Your task to perform on an android device: turn on bluetooth scan Image 0: 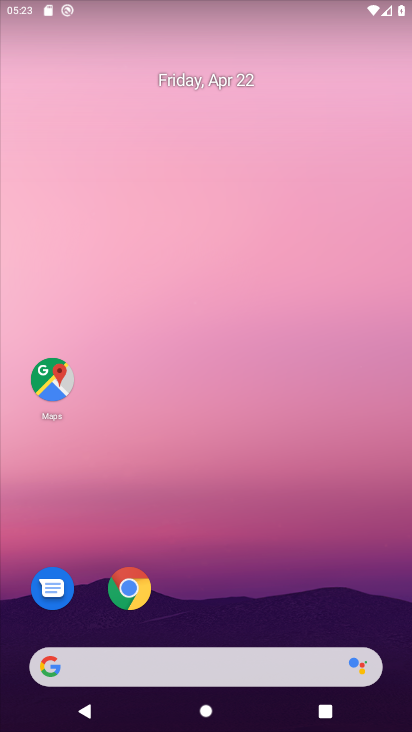
Step 0: drag from (295, 514) to (296, 0)
Your task to perform on an android device: turn on bluetooth scan Image 1: 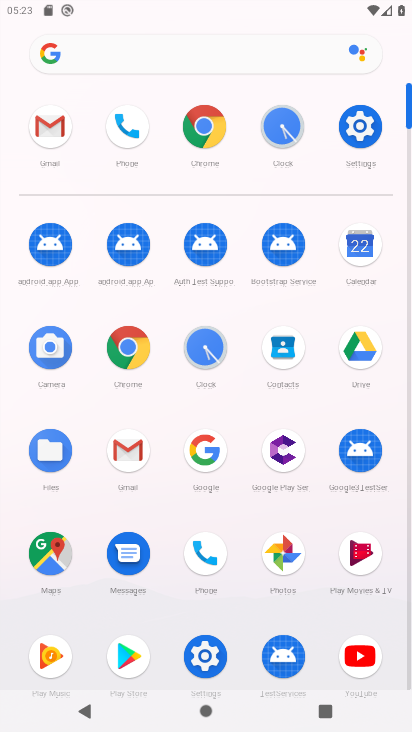
Step 1: click (367, 131)
Your task to perform on an android device: turn on bluetooth scan Image 2: 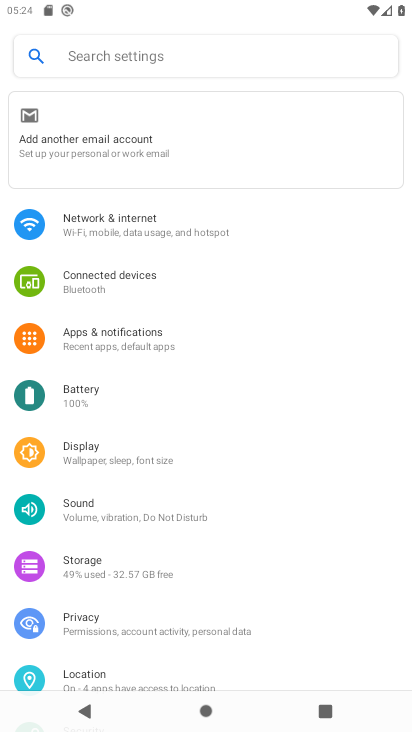
Step 2: drag from (154, 539) to (196, 320)
Your task to perform on an android device: turn on bluetooth scan Image 3: 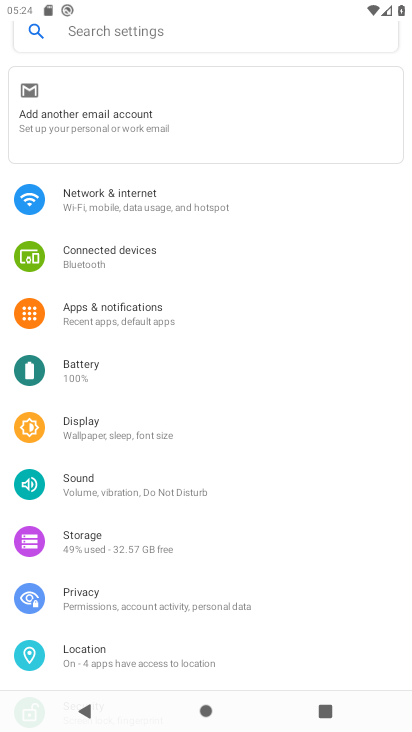
Step 3: click (123, 647)
Your task to perform on an android device: turn on bluetooth scan Image 4: 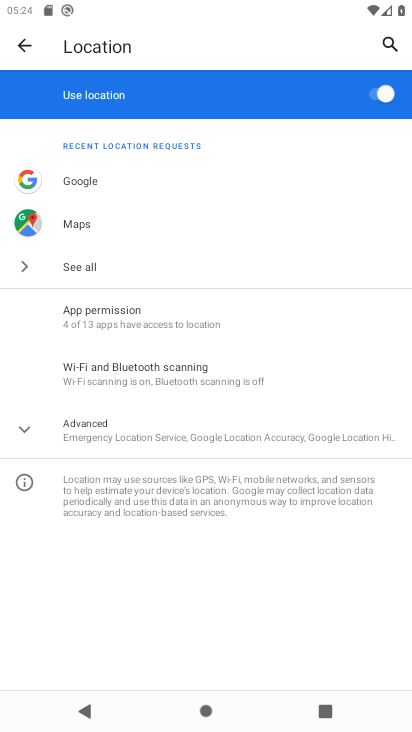
Step 4: click (138, 379)
Your task to perform on an android device: turn on bluetooth scan Image 5: 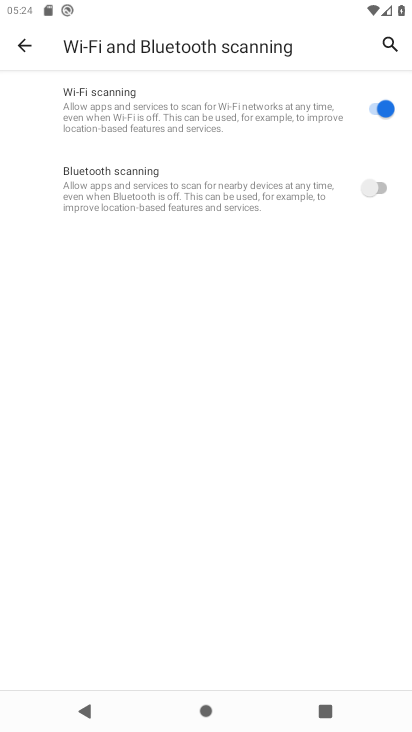
Step 5: click (364, 186)
Your task to perform on an android device: turn on bluetooth scan Image 6: 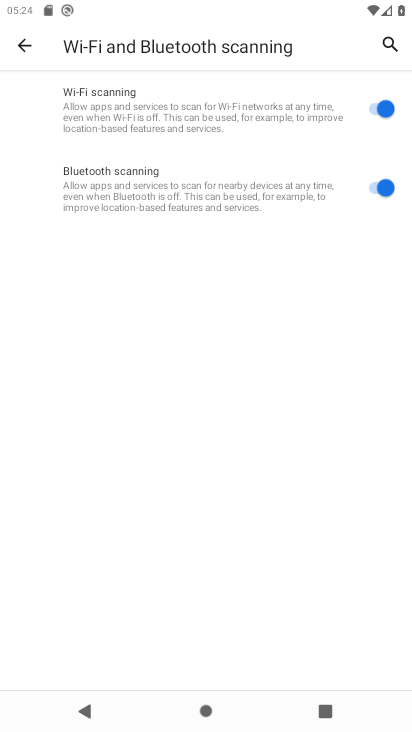
Step 6: task complete